Your task to perform on an android device: toggle wifi Image 0: 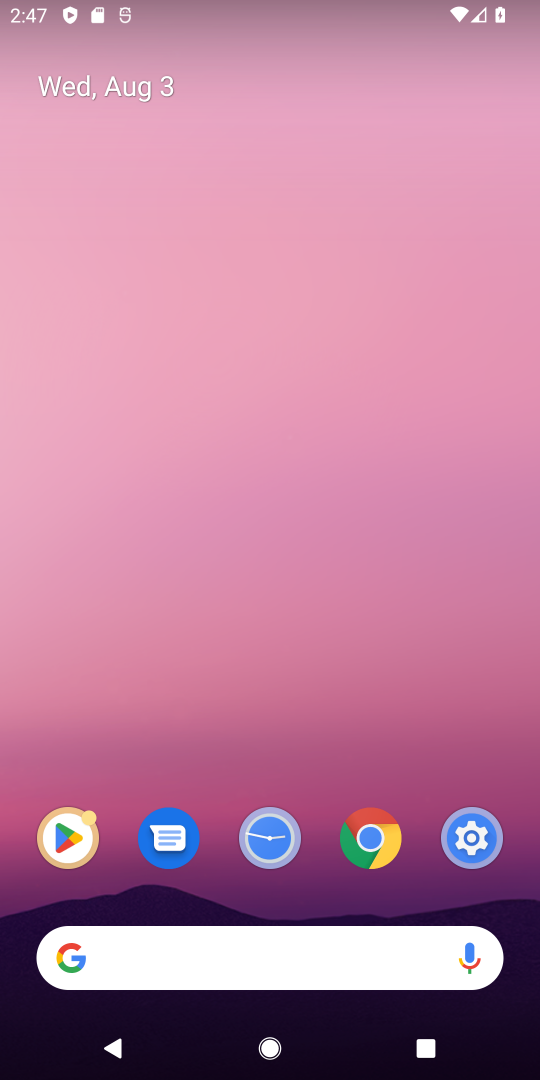
Step 0: click (473, 845)
Your task to perform on an android device: toggle wifi Image 1: 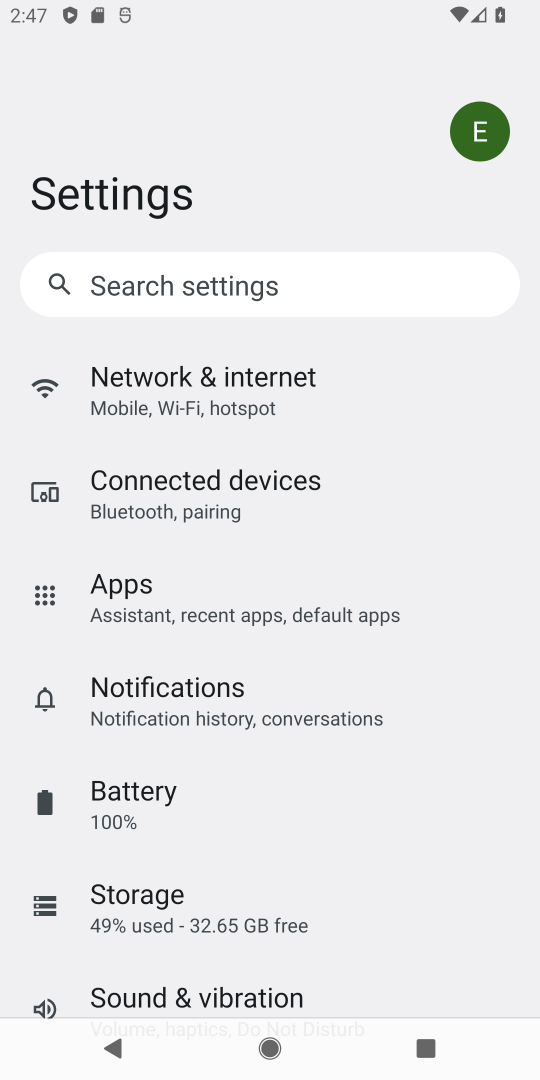
Step 1: click (319, 396)
Your task to perform on an android device: toggle wifi Image 2: 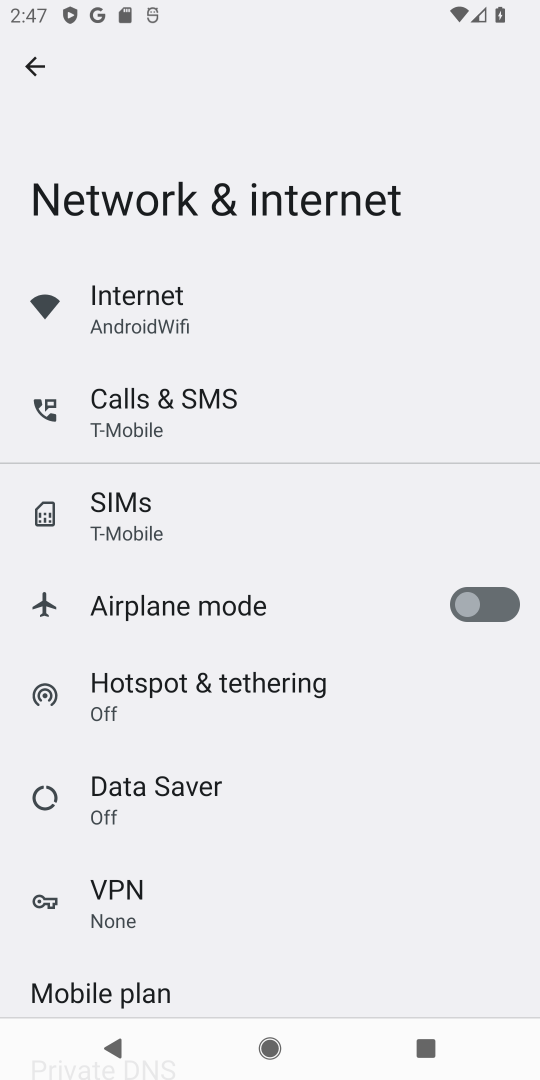
Step 2: click (159, 311)
Your task to perform on an android device: toggle wifi Image 3: 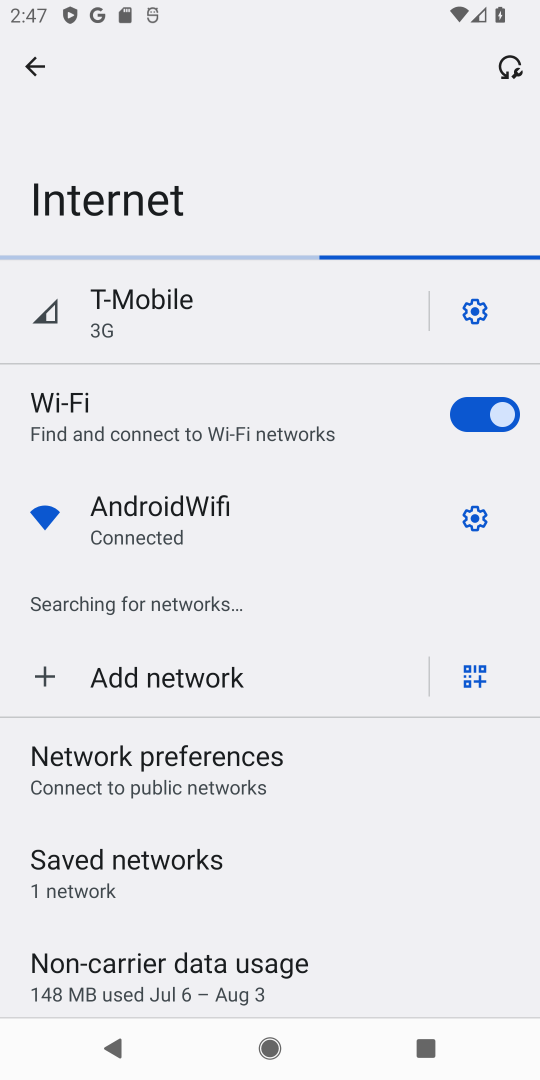
Step 3: click (451, 405)
Your task to perform on an android device: toggle wifi Image 4: 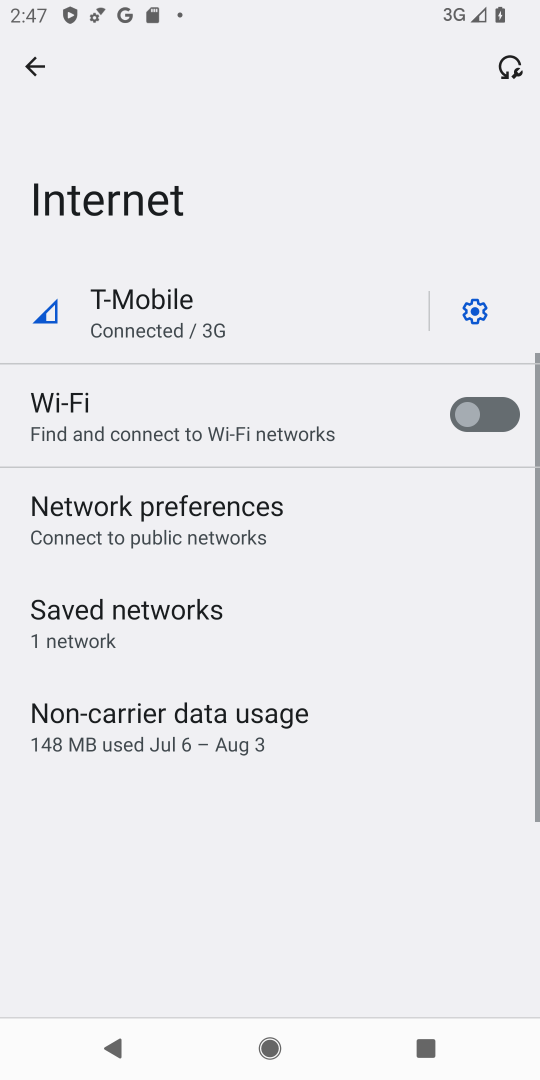
Step 4: task complete